Your task to perform on an android device: Go to Maps Image 0: 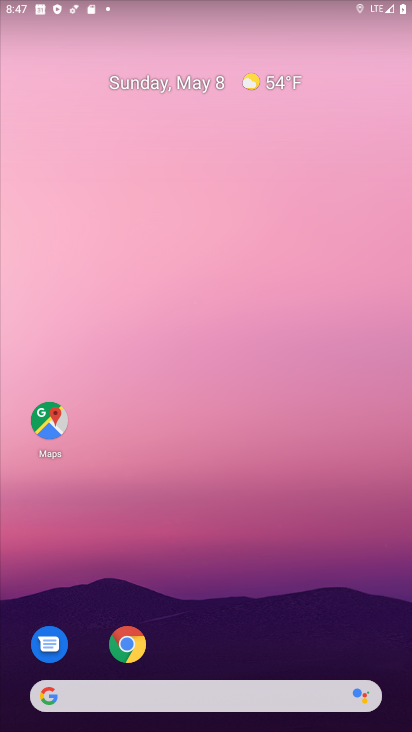
Step 0: drag from (198, 610) to (241, 19)
Your task to perform on an android device: Go to Maps Image 1: 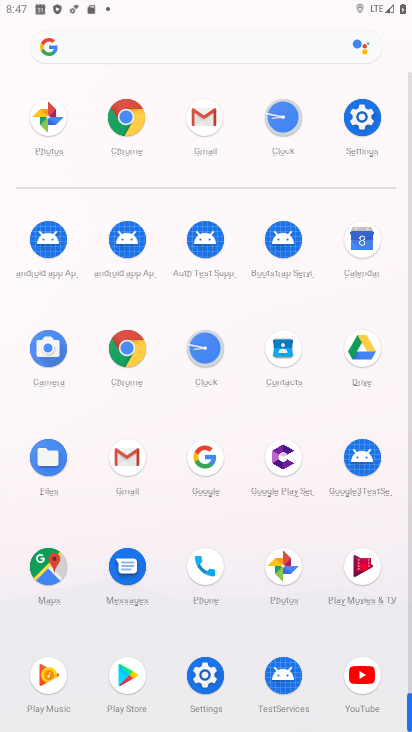
Step 1: drag from (154, 621) to (147, 45)
Your task to perform on an android device: Go to Maps Image 2: 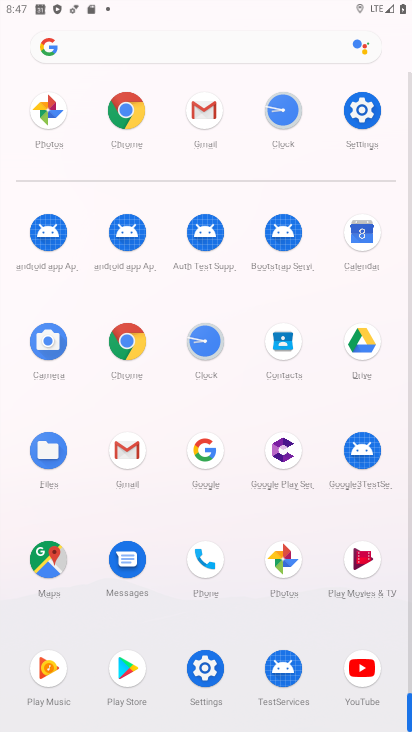
Step 2: click (44, 561)
Your task to perform on an android device: Go to Maps Image 3: 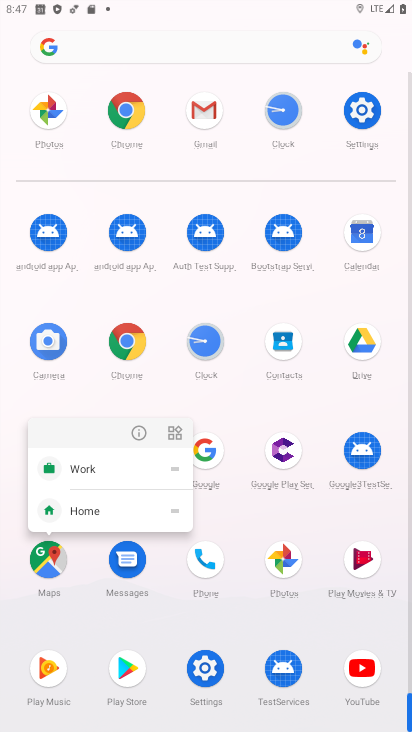
Step 3: click (134, 436)
Your task to perform on an android device: Go to Maps Image 4: 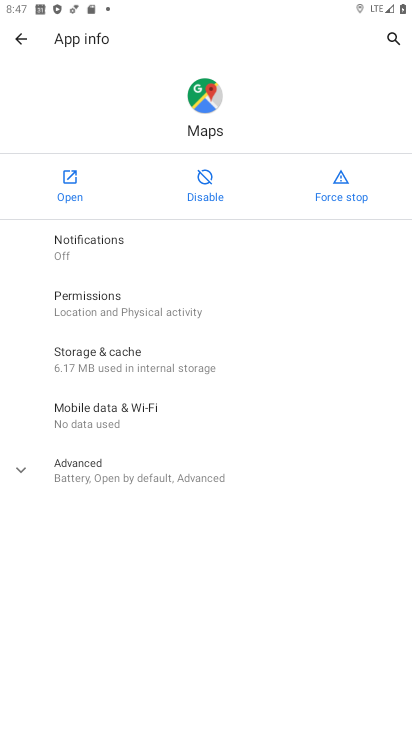
Step 4: click (68, 166)
Your task to perform on an android device: Go to Maps Image 5: 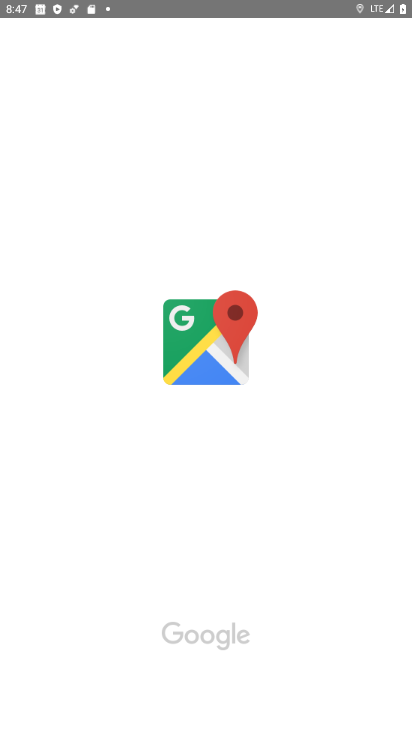
Step 5: drag from (306, 547) to (332, 170)
Your task to perform on an android device: Go to Maps Image 6: 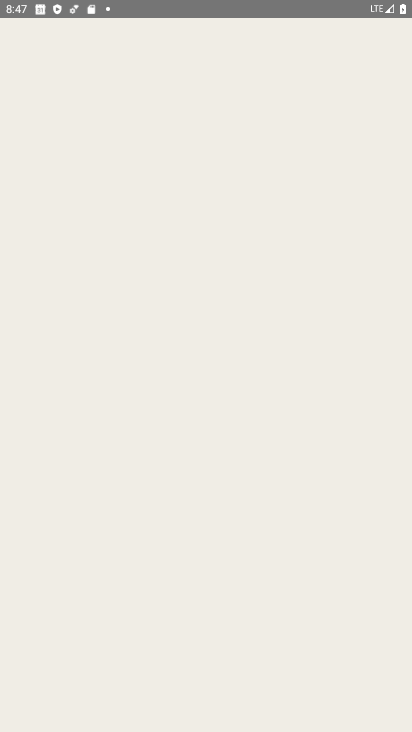
Step 6: drag from (237, 672) to (234, 200)
Your task to perform on an android device: Go to Maps Image 7: 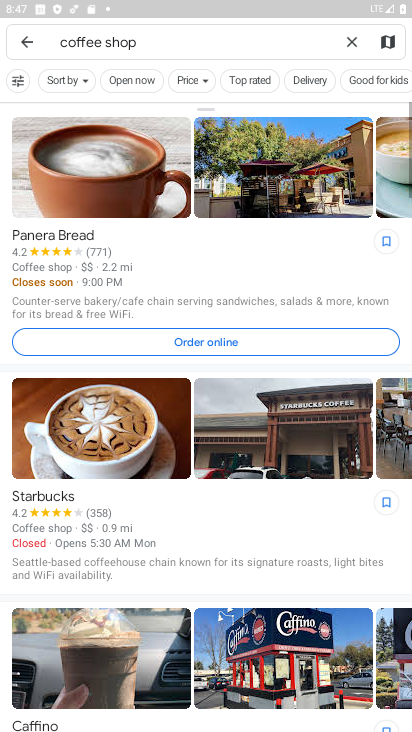
Step 7: drag from (257, 286) to (283, 594)
Your task to perform on an android device: Go to Maps Image 8: 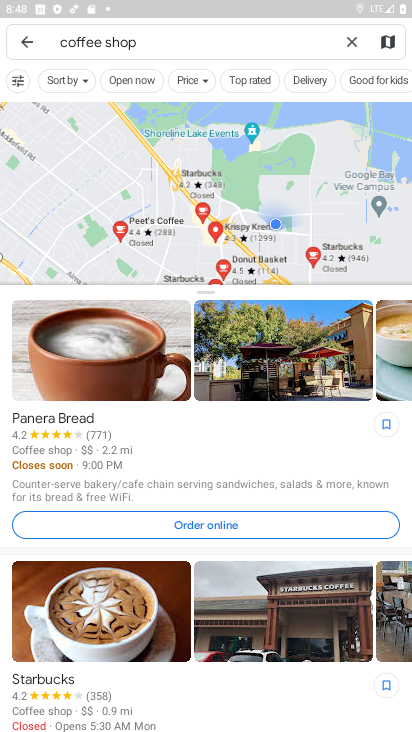
Step 8: click (345, 50)
Your task to perform on an android device: Go to Maps Image 9: 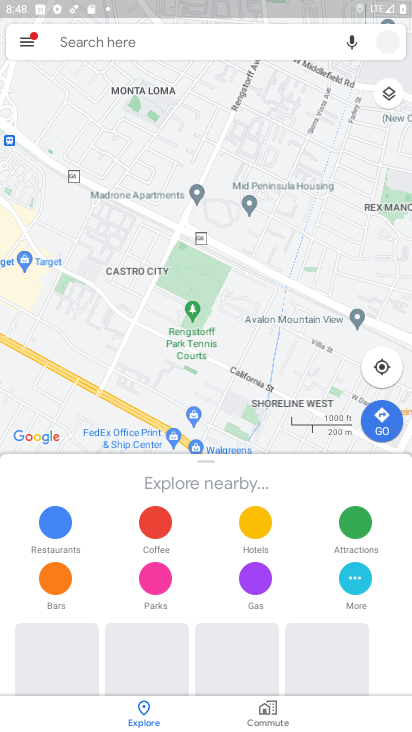
Step 9: click (143, 45)
Your task to perform on an android device: Go to Maps Image 10: 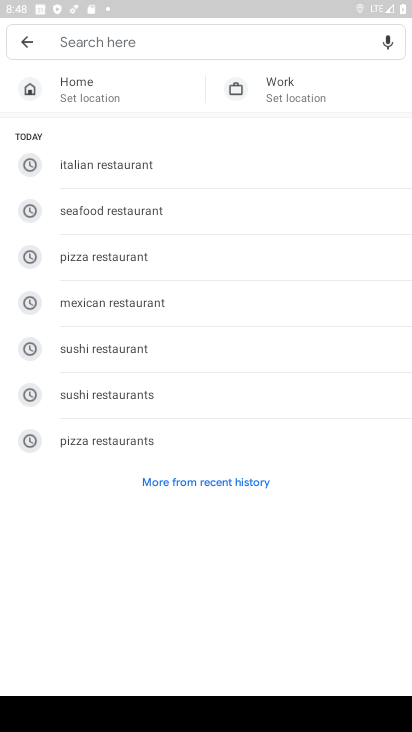
Step 10: task complete